Your task to perform on an android device: search for starred emails in the gmail app Image 0: 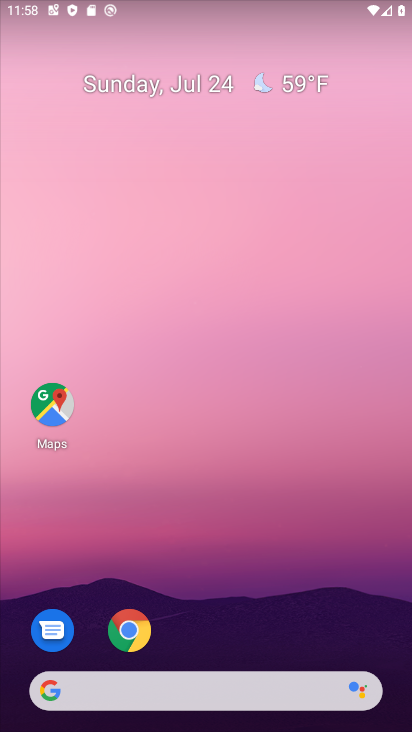
Step 0: drag from (219, 679) to (306, 84)
Your task to perform on an android device: search for starred emails in the gmail app Image 1: 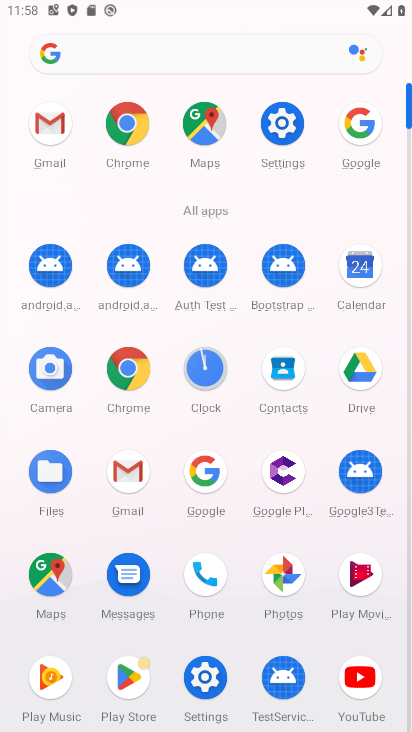
Step 1: click (126, 467)
Your task to perform on an android device: search for starred emails in the gmail app Image 2: 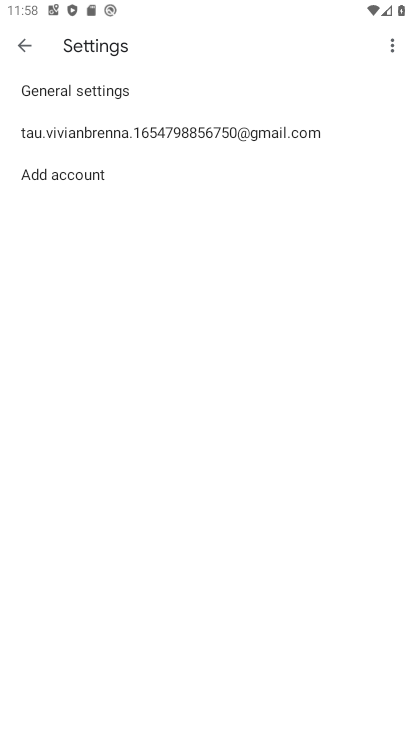
Step 2: click (21, 45)
Your task to perform on an android device: search for starred emails in the gmail app Image 3: 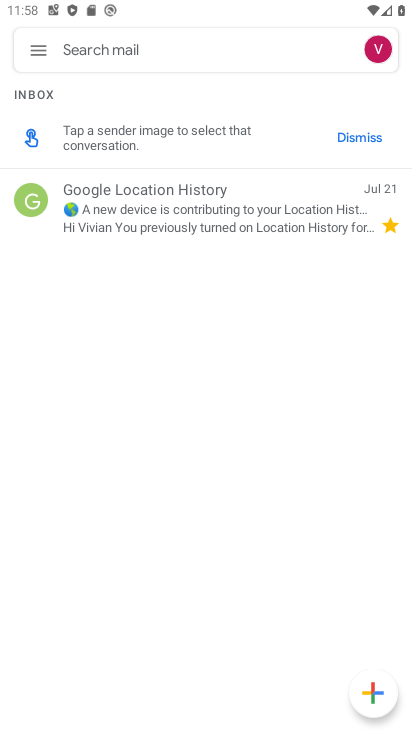
Step 3: click (42, 43)
Your task to perform on an android device: search for starred emails in the gmail app Image 4: 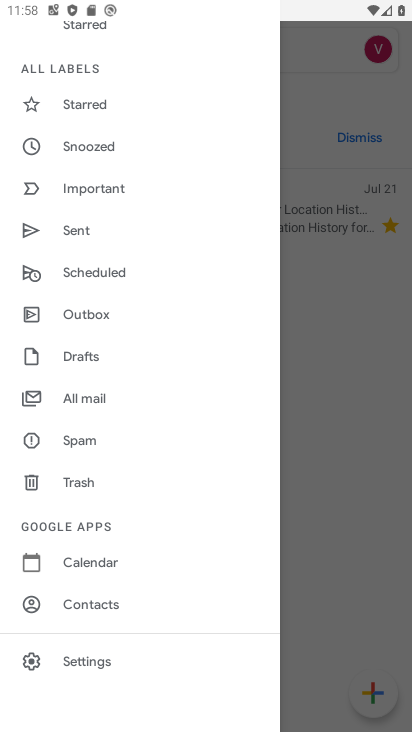
Step 4: click (76, 101)
Your task to perform on an android device: search for starred emails in the gmail app Image 5: 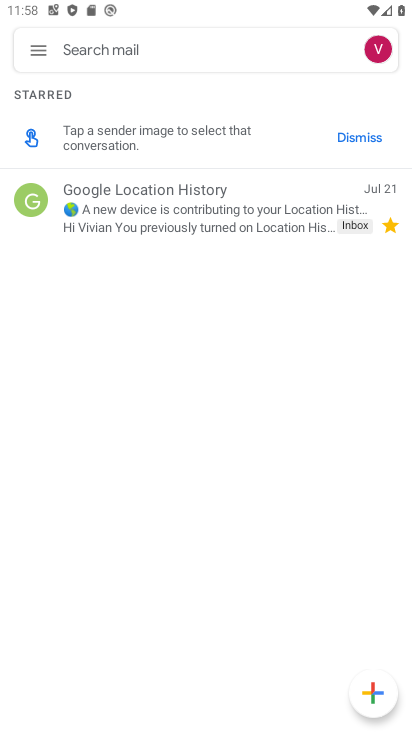
Step 5: task complete